Your task to perform on an android device: Open Amazon Image 0: 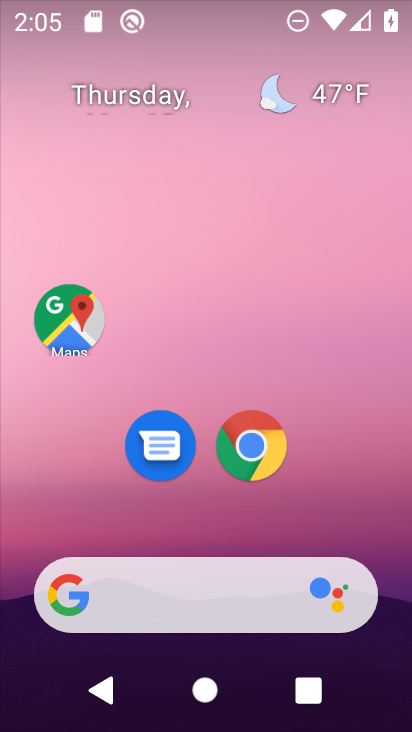
Step 0: click (257, 453)
Your task to perform on an android device: Open Amazon Image 1: 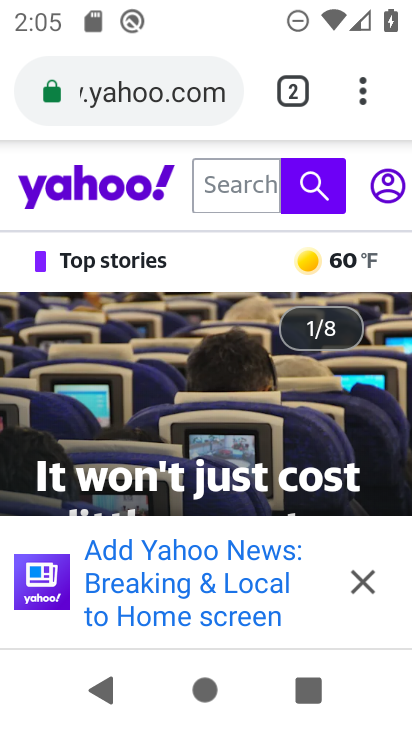
Step 1: click (301, 90)
Your task to perform on an android device: Open Amazon Image 2: 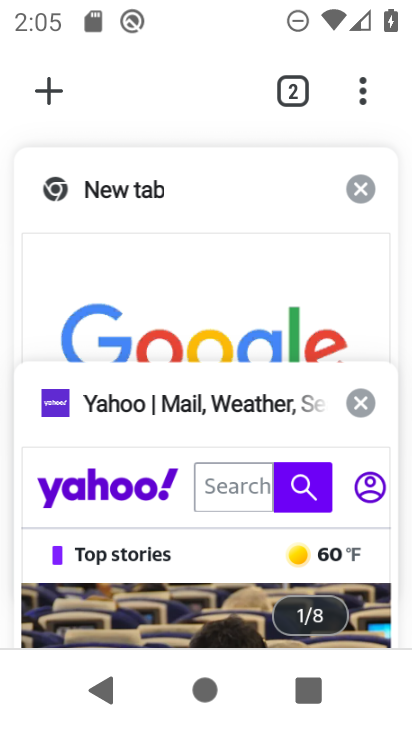
Step 2: click (106, 244)
Your task to perform on an android device: Open Amazon Image 3: 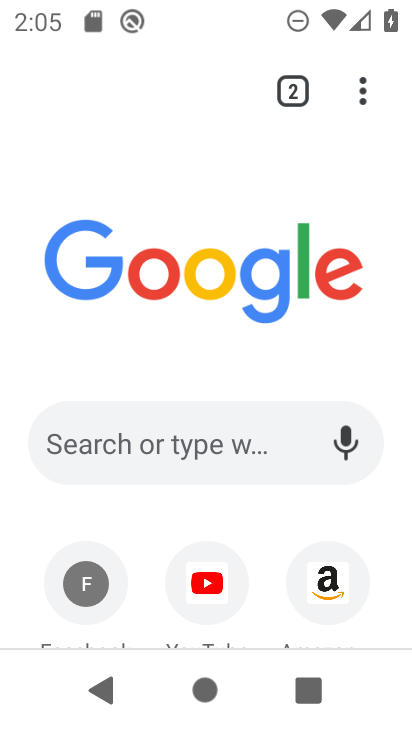
Step 3: click (325, 582)
Your task to perform on an android device: Open Amazon Image 4: 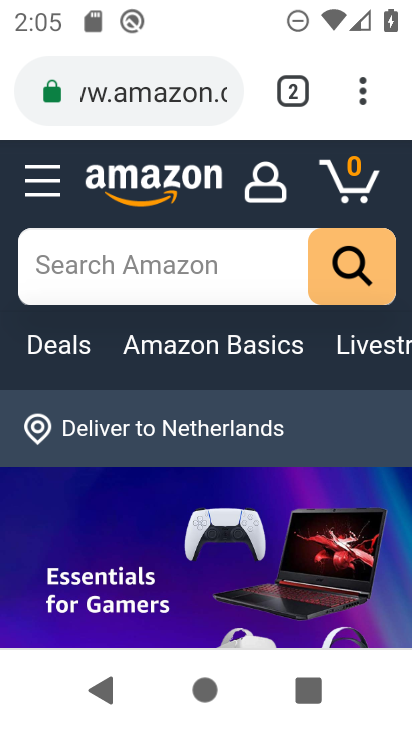
Step 4: task complete